Your task to perform on an android device: stop showing notifications on the lock screen Image 0: 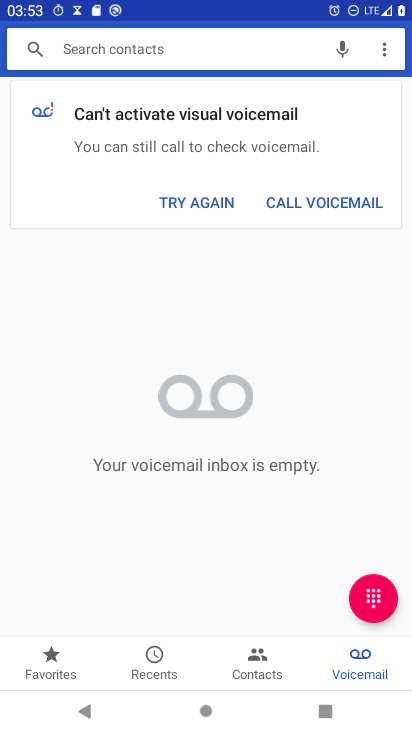
Step 0: press home button
Your task to perform on an android device: stop showing notifications on the lock screen Image 1: 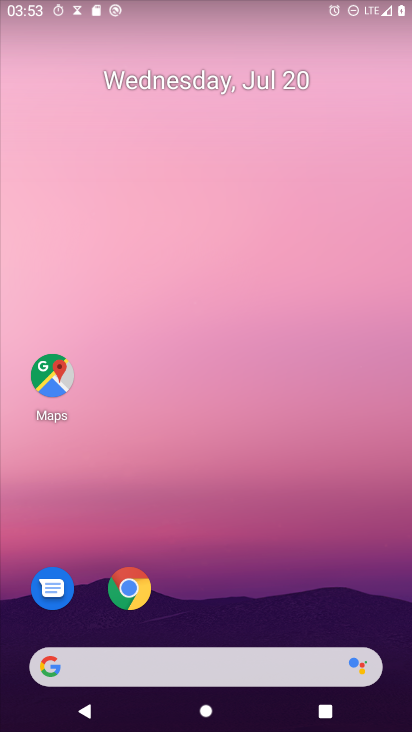
Step 1: drag from (205, 642) to (47, 80)
Your task to perform on an android device: stop showing notifications on the lock screen Image 2: 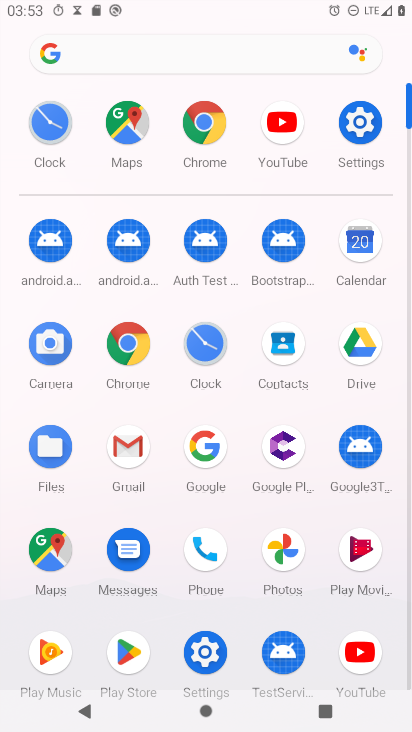
Step 2: click (352, 153)
Your task to perform on an android device: stop showing notifications on the lock screen Image 3: 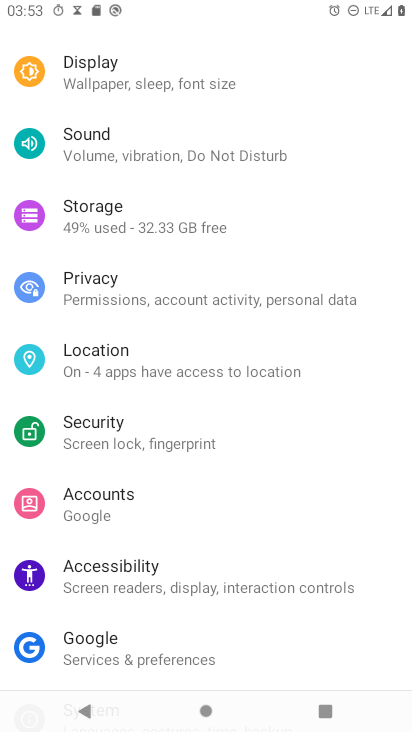
Step 3: drag from (212, 514) to (161, 58)
Your task to perform on an android device: stop showing notifications on the lock screen Image 4: 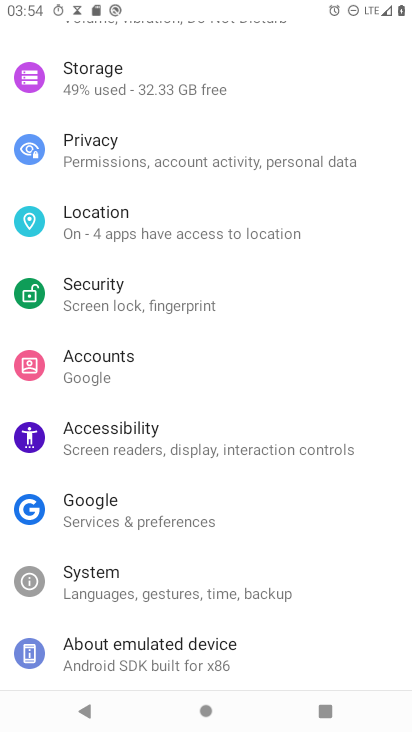
Step 4: drag from (161, 58) to (32, 718)
Your task to perform on an android device: stop showing notifications on the lock screen Image 5: 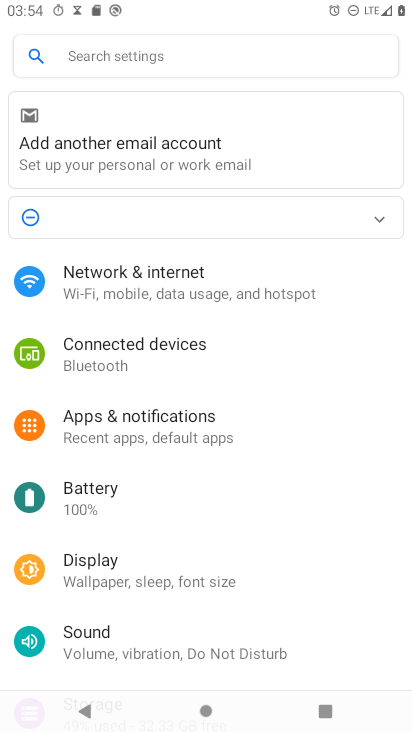
Step 5: click (153, 421)
Your task to perform on an android device: stop showing notifications on the lock screen Image 6: 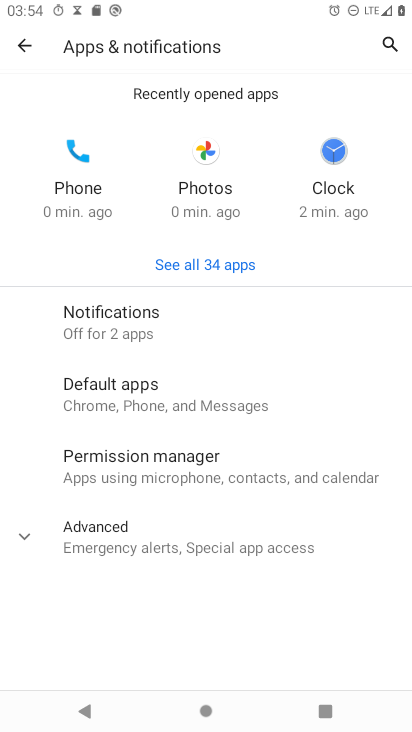
Step 6: click (112, 319)
Your task to perform on an android device: stop showing notifications on the lock screen Image 7: 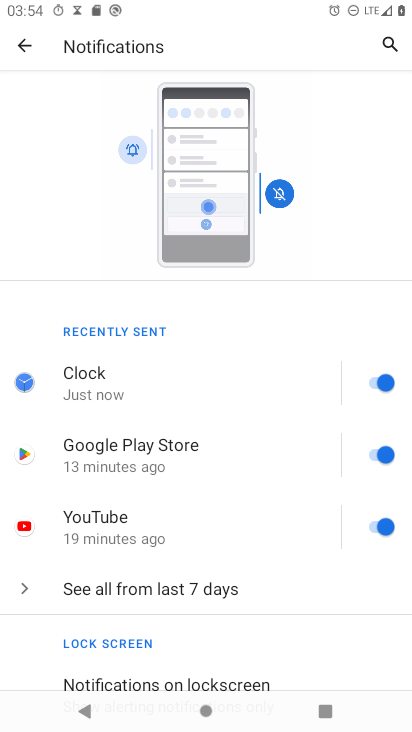
Step 7: click (221, 653)
Your task to perform on an android device: stop showing notifications on the lock screen Image 8: 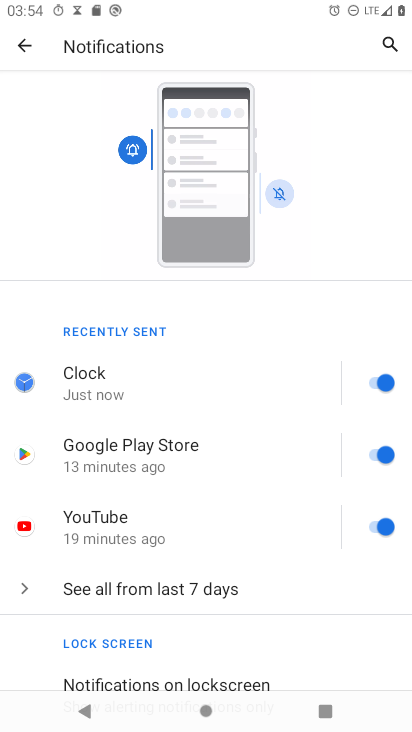
Step 8: click (99, 672)
Your task to perform on an android device: stop showing notifications on the lock screen Image 9: 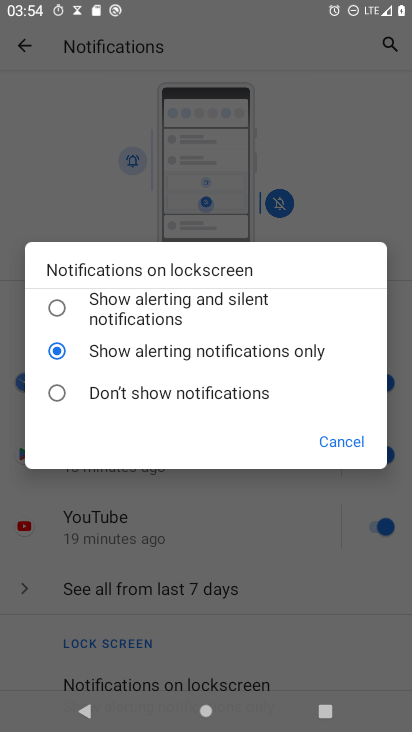
Step 9: click (52, 393)
Your task to perform on an android device: stop showing notifications on the lock screen Image 10: 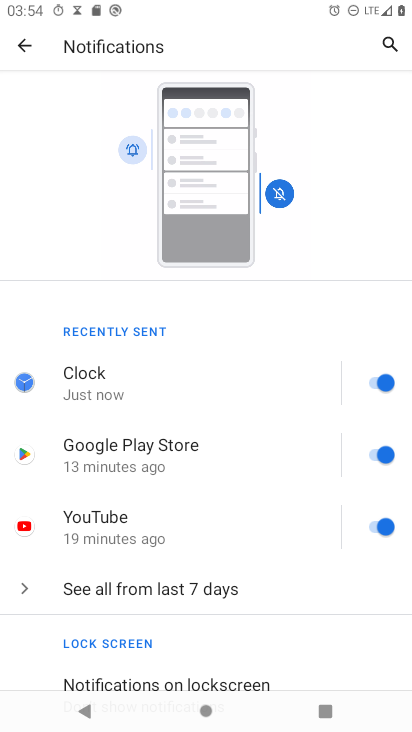
Step 10: task complete